Your task to perform on an android device: turn off sleep mode Image 0: 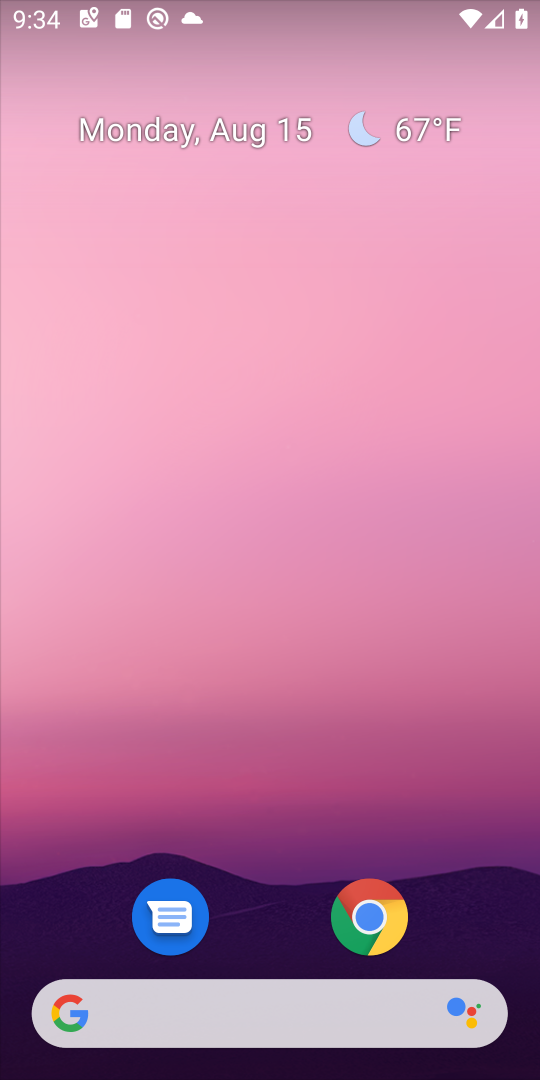
Step 0: drag from (262, 416) to (265, 2)
Your task to perform on an android device: turn off sleep mode Image 1: 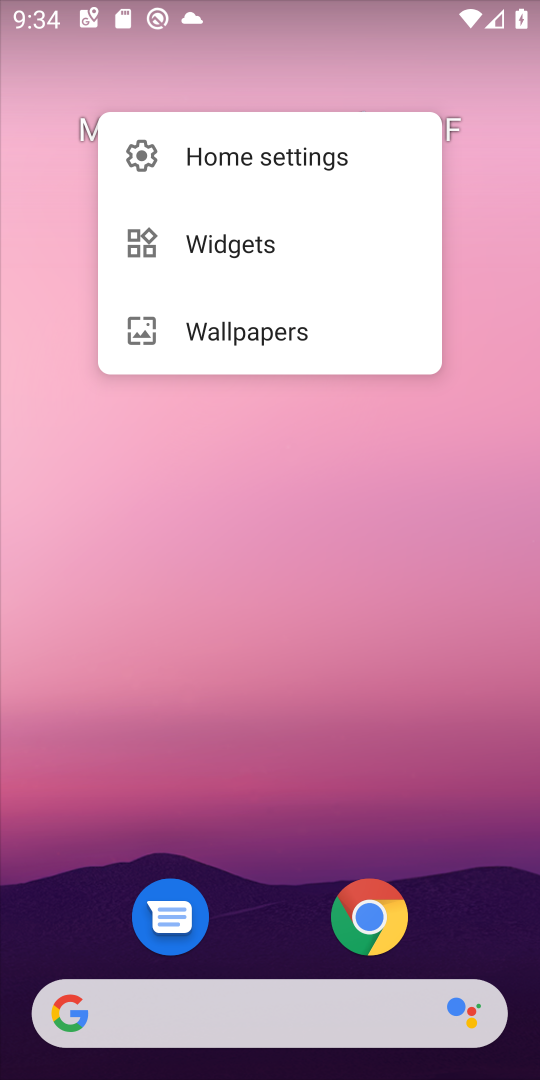
Step 1: task complete